Your task to perform on an android device: check google app version Image 0: 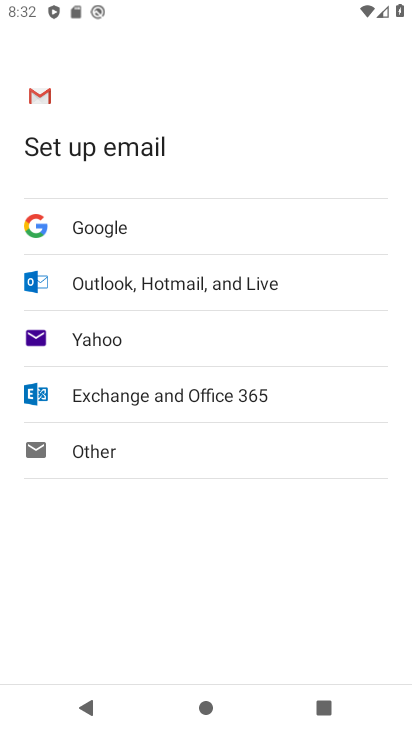
Step 0: press home button
Your task to perform on an android device: check google app version Image 1: 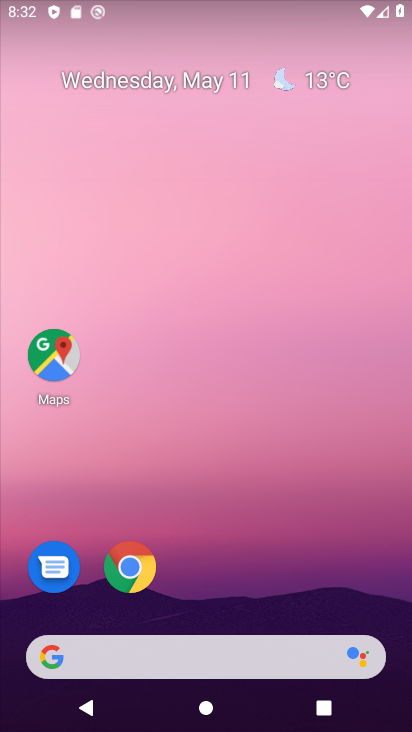
Step 1: click (149, 666)
Your task to perform on an android device: check google app version Image 2: 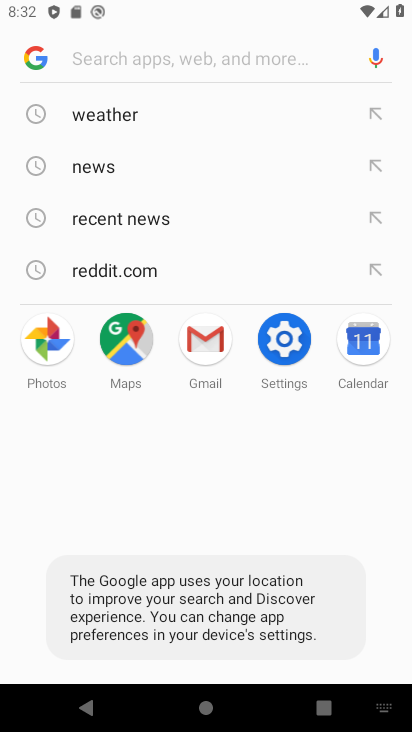
Step 2: click (42, 69)
Your task to perform on an android device: check google app version Image 3: 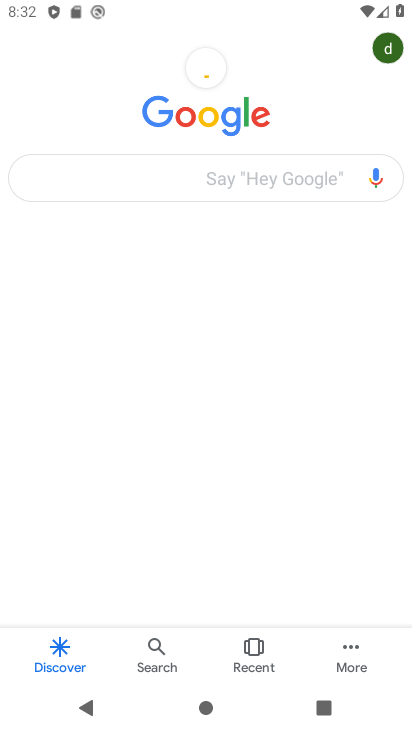
Step 3: click (339, 639)
Your task to perform on an android device: check google app version Image 4: 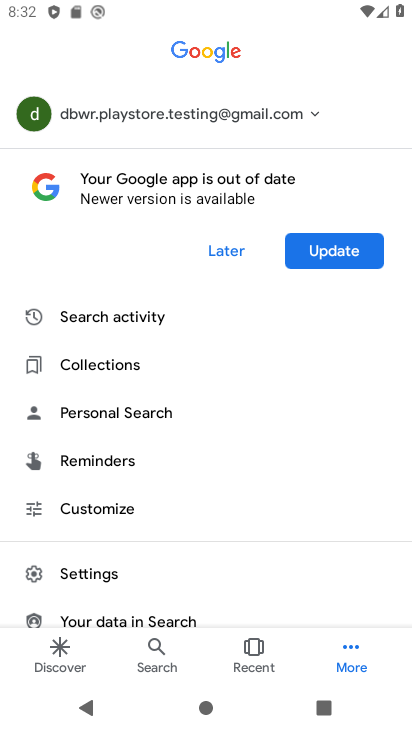
Step 4: click (108, 573)
Your task to perform on an android device: check google app version Image 5: 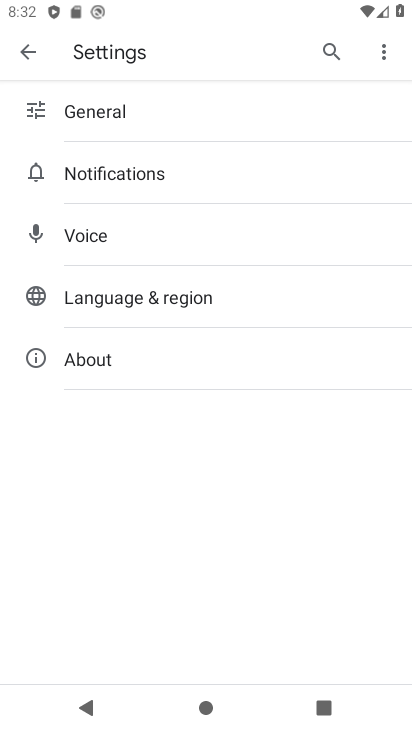
Step 5: click (69, 362)
Your task to perform on an android device: check google app version Image 6: 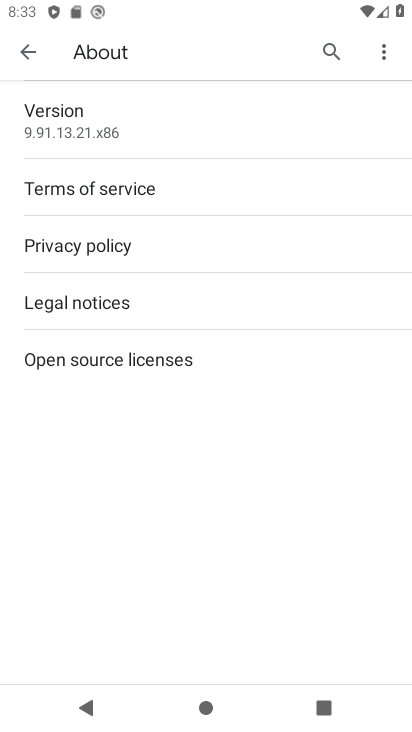
Step 6: task complete